Your task to perform on an android device: set the timer Image 0: 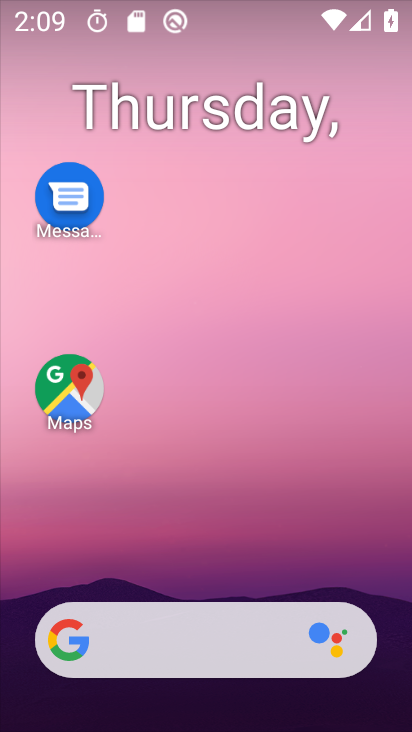
Step 0: drag from (186, 300) to (208, 145)
Your task to perform on an android device: set the timer Image 1: 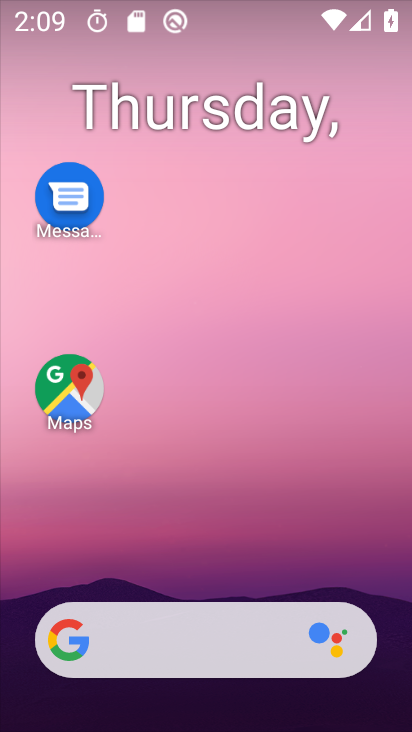
Step 1: drag from (170, 596) to (215, 68)
Your task to perform on an android device: set the timer Image 2: 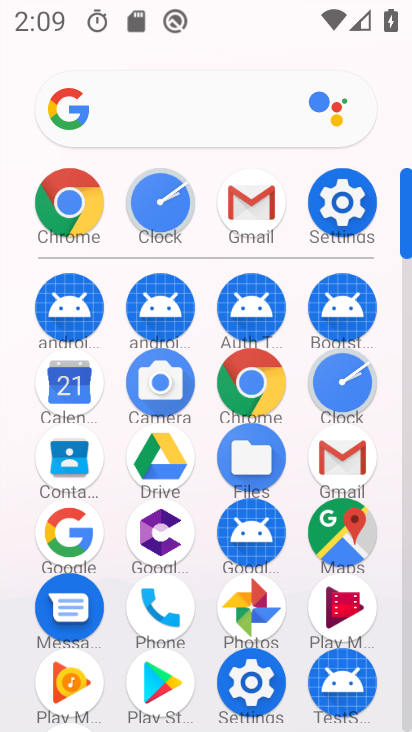
Step 2: click (348, 385)
Your task to perform on an android device: set the timer Image 3: 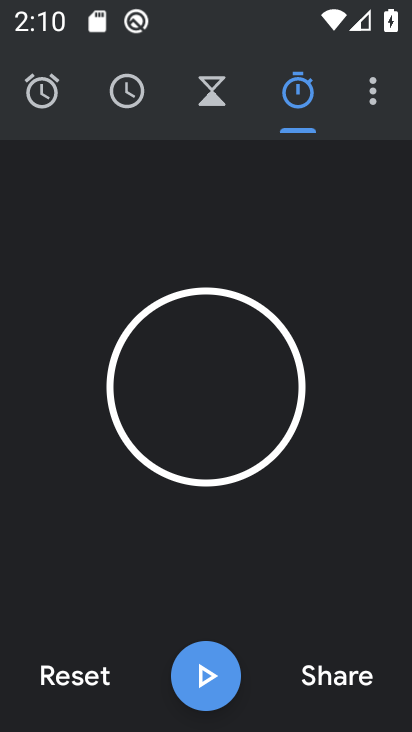
Step 3: task complete